Your task to perform on an android device: Open calendar and show me the fourth week of next month Image 0: 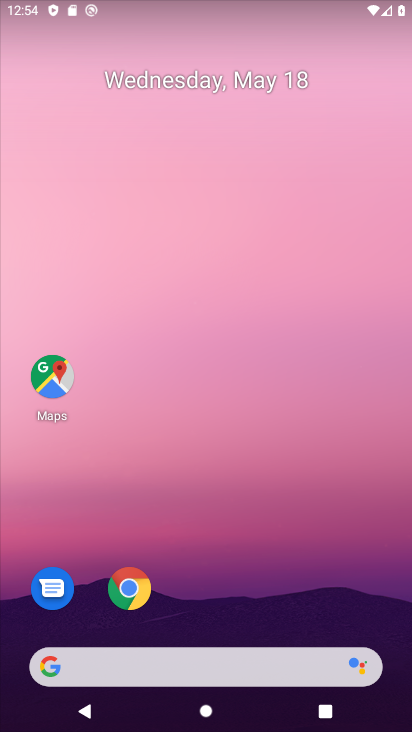
Step 0: drag from (363, 593) to (371, 145)
Your task to perform on an android device: Open calendar and show me the fourth week of next month Image 1: 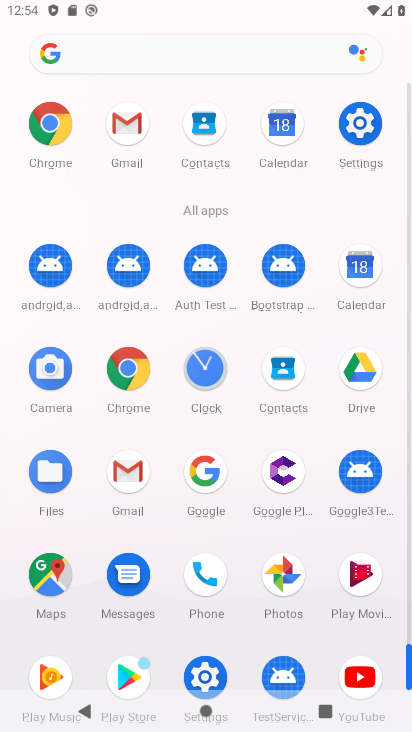
Step 1: click (363, 285)
Your task to perform on an android device: Open calendar and show me the fourth week of next month Image 2: 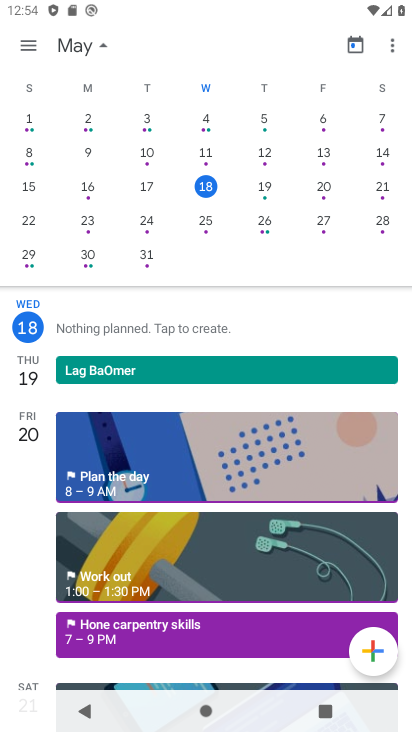
Step 2: drag from (379, 246) to (8, 167)
Your task to perform on an android device: Open calendar and show me the fourth week of next month Image 3: 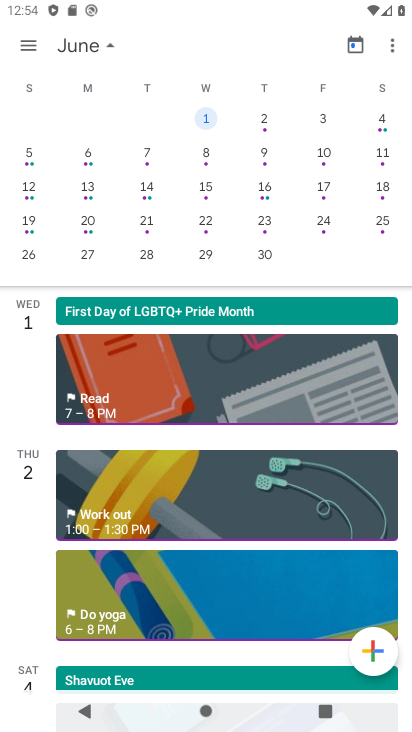
Step 3: click (149, 223)
Your task to perform on an android device: Open calendar and show me the fourth week of next month Image 4: 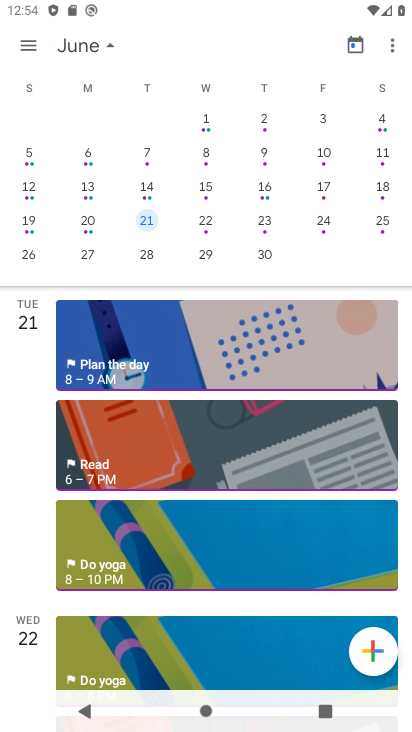
Step 4: task complete